Your task to perform on an android device: Go to CNN.com Image 0: 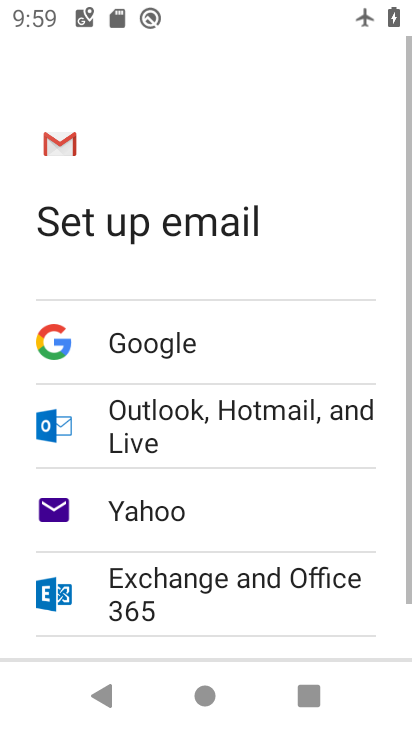
Step 0: press home button
Your task to perform on an android device: Go to CNN.com Image 1: 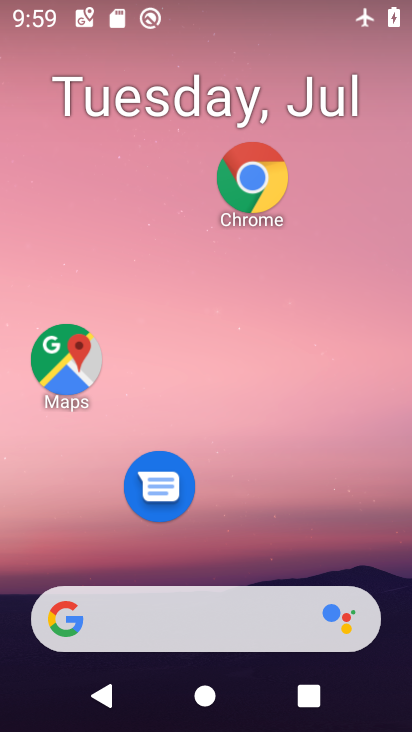
Step 1: click (265, 206)
Your task to perform on an android device: Go to CNN.com Image 2: 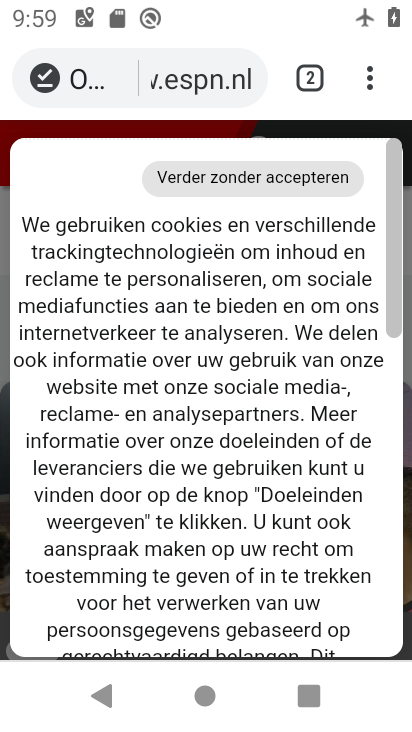
Step 2: click (190, 73)
Your task to perform on an android device: Go to CNN.com Image 3: 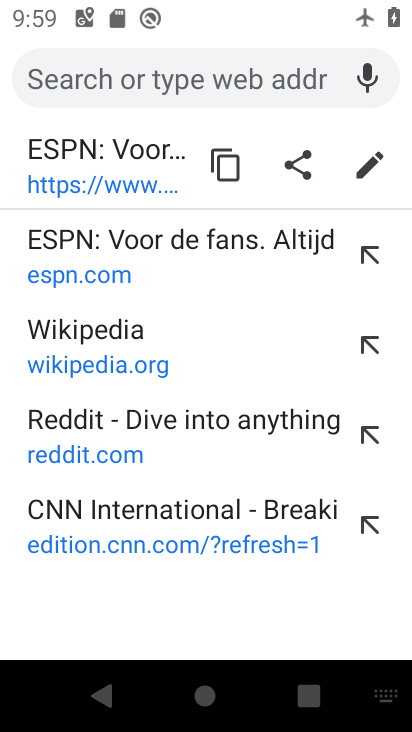
Step 3: click (161, 550)
Your task to perform on an android device: Go to CNN.com Image 4: 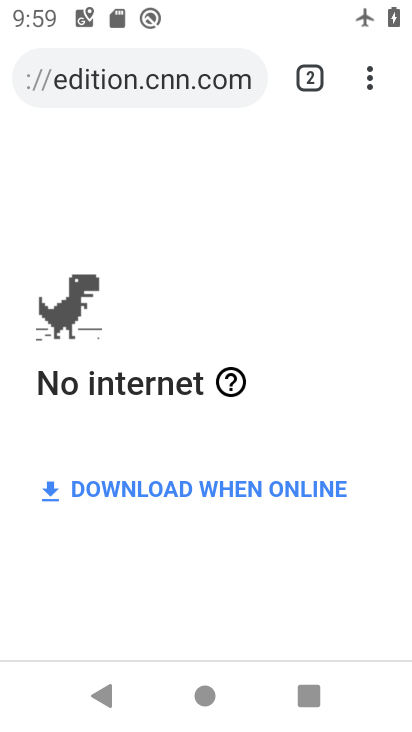
Step 4: task complete